Your task to perform on an android device: open the mobile data screen to see how much data has been used Image 0: 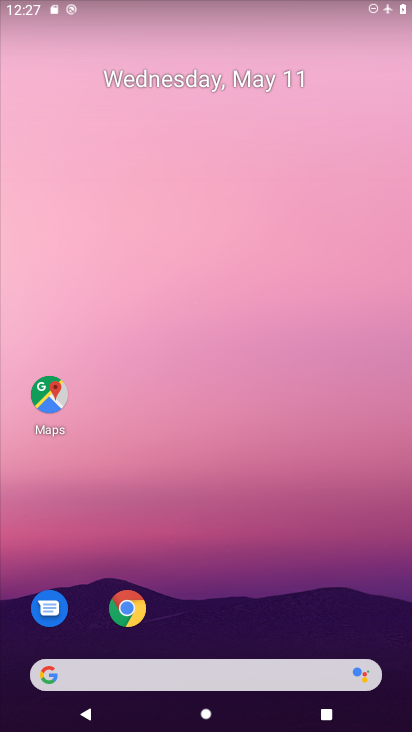
Step 0: drag from (246, 585) to (275, 0)
Your task to perform on an android device: open the mobile data screen to see how much data has been used Image 1: 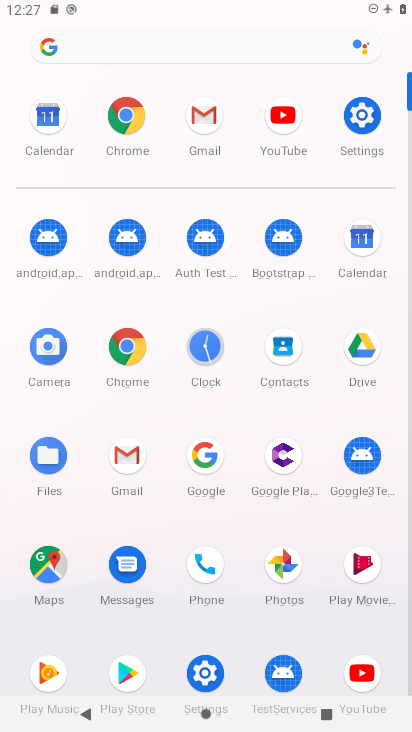
Step 1: click (362, 107)
Your task to perform on an android device: open the mobile data screen to see how much data has been used Image 2: 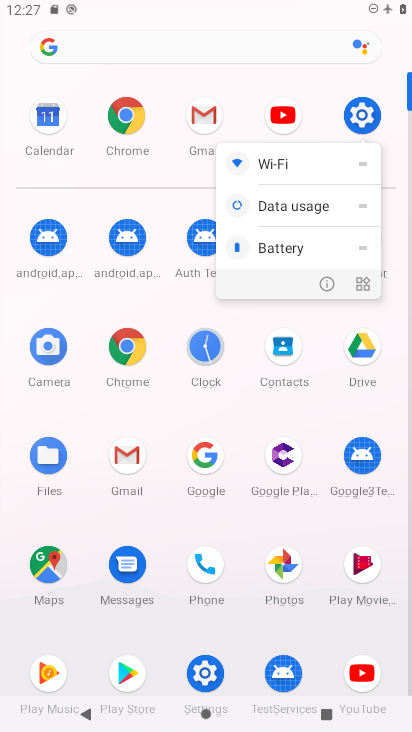
Step 2: click (362, 108)
Your task to perform on an android device: open the mobile data screen to see how much data has been used Image 3: 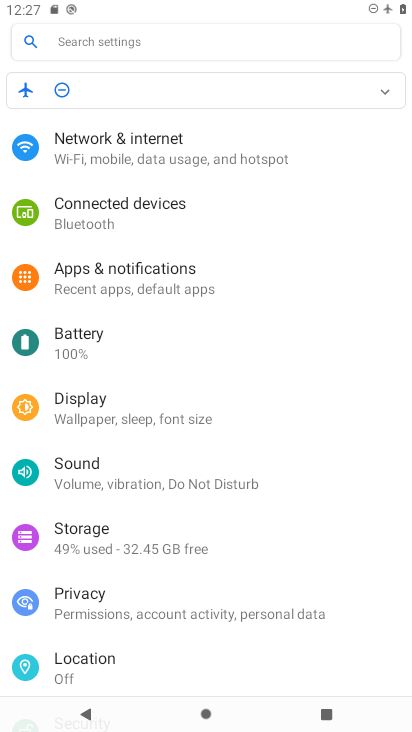
Step 3: click (223, 152)
Your task to perform on an android device: open the mobile data screen to see how much data has been used Image 4: 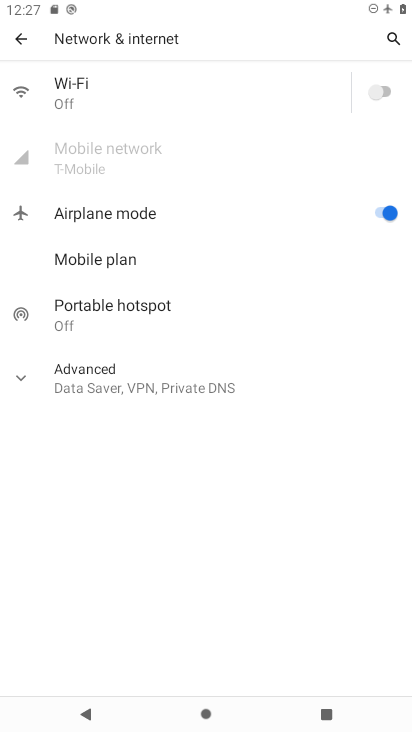
Step 4: click (193, 167)
Your task to perform on an android device: open the mobile data screen to see how much data has been used Image 5: 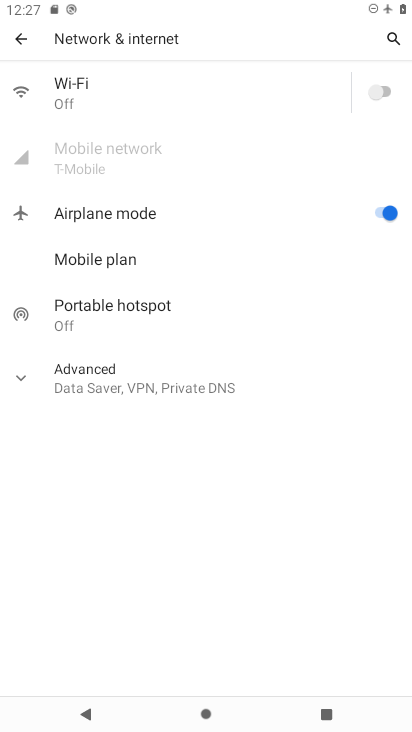
Step 5: click (379, 209)
Your task to perform on an android device: open the mobile data screen to see how much data has been used Image 6: 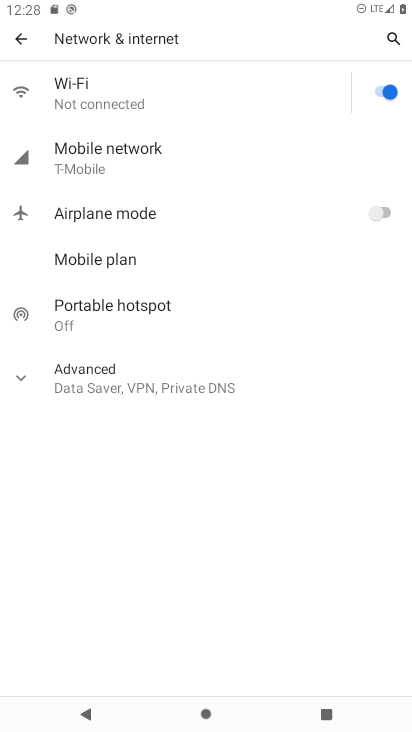
Step 6: click (258, 167)
Your task to perform on an android device: open the mobile data screen to see how much data has been used Image 7: 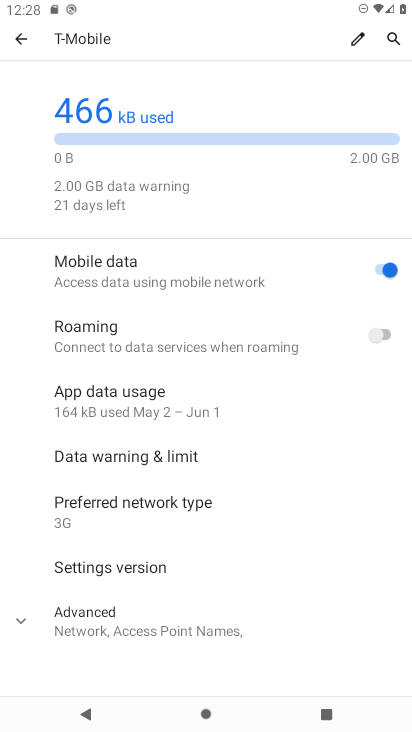
Step 7: task complete